Your task to perform on an android device: delete browsing data in the chrome app Image 0: 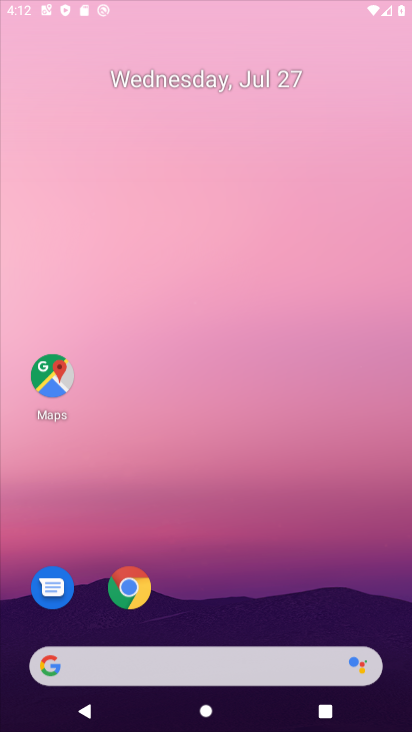
Step 0: click (129, 588)
Your task to perform on an android device: delete browsing data in the chrome app Image 1: 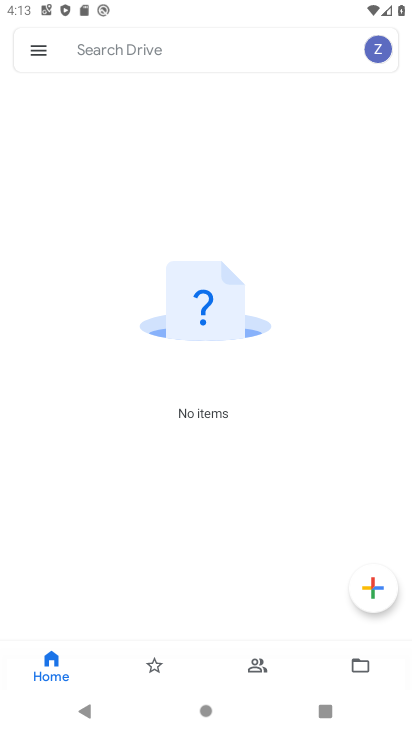
Step 1: press home button
Your task to perform on an android device: delete browsing data in the chrome app Image 2: 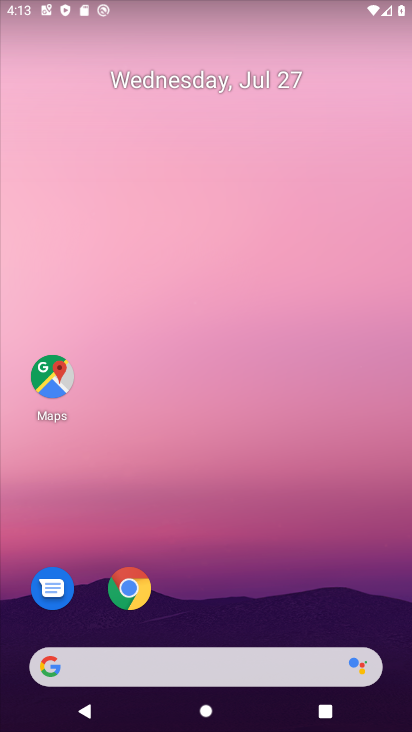
Step 2: click (132, 584)
Your task to perform on an android device: delete browsing data in the chrome app Image 3: 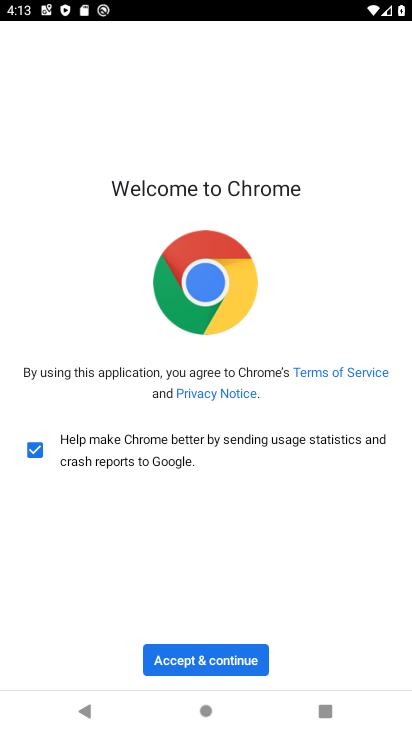
Step 3: click (211, 650)
Your task to perform on an android device: delete browsing data in the chrome app Image 4: 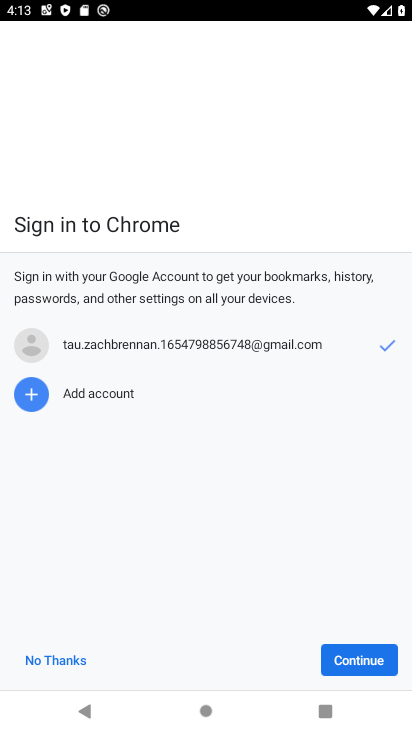
Step 4: click (347, 655)
Your task to perform on an android device: delete browsing data in the chrome app Image 5: 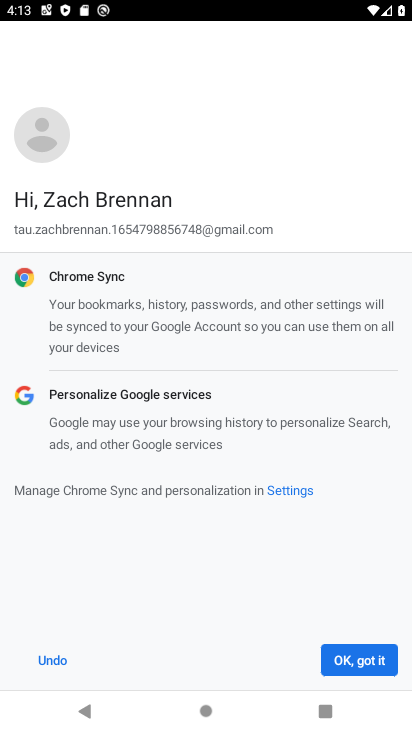
Step 5: click (352, 657)
Your task to perform on an android device: delete browsing data in the chrome app Image 6: 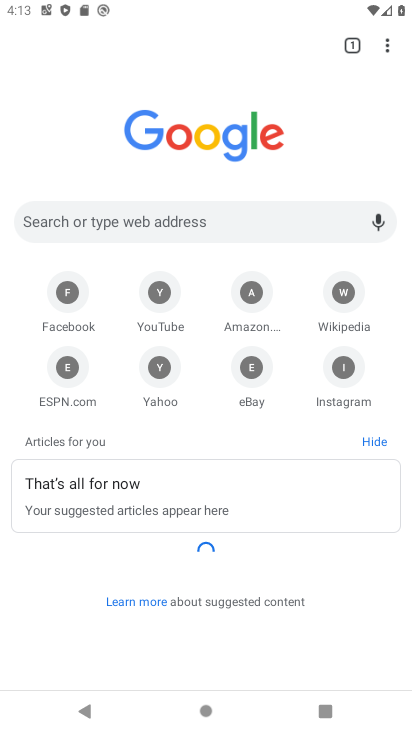
Step 6: click (386, 50)
Your task to perform on an android device: delete browsing data in the chrome app Image 7: 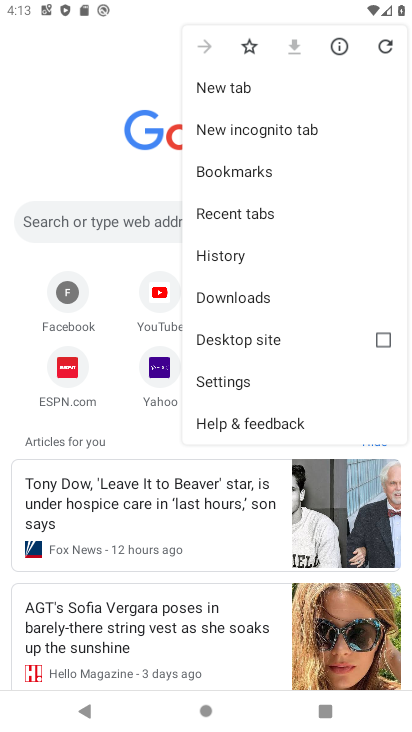
Step 7: click (223, 254)
Your task to perform on an android device: delete browsing data in the chrome app Image 8: 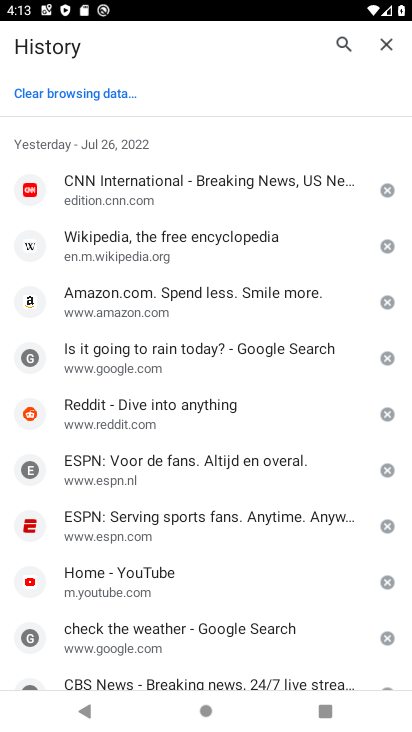
Step 8: click (96, 94)
Your task to perform on an android device: delete browsing data in the chrome app Image 9: 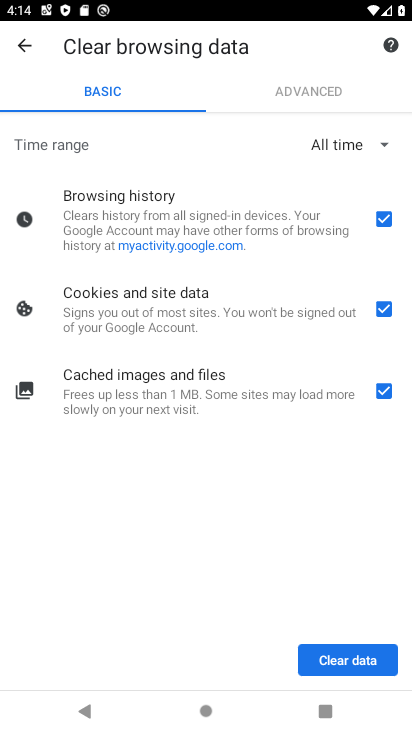
Step 9: click (383, 377)
Your task to perform on an android device: delete browsing data in the chrome app Image 10: 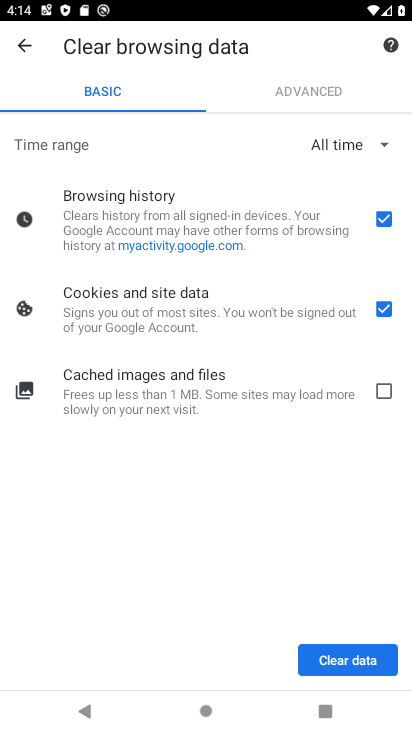
Step 10: click (388, 307)
Your task to perform on an android device: delete browsing data in the chrome app Image 11: 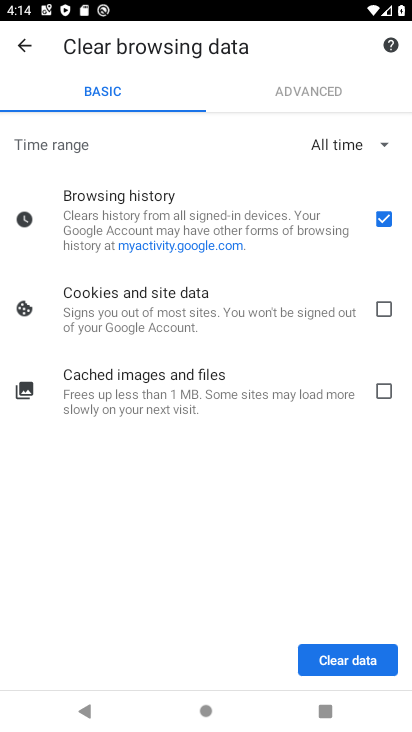
Step 11: click (331, 657)
Your task to perform on an android device: delete browsing data in the chrome app Image 12: 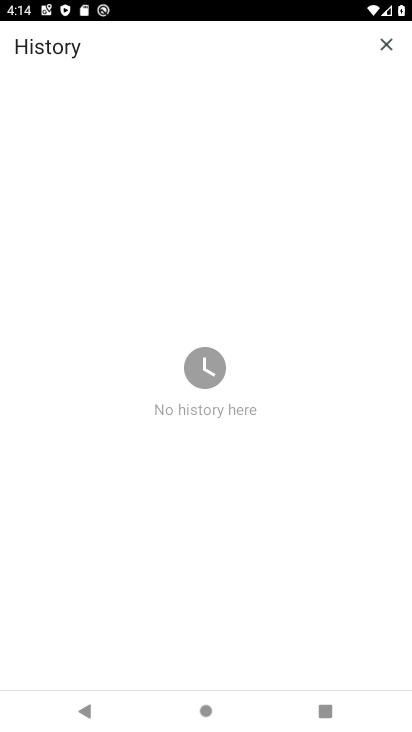
Step 12: task complete